Your task to perform on an android device: Open the map Image 0: 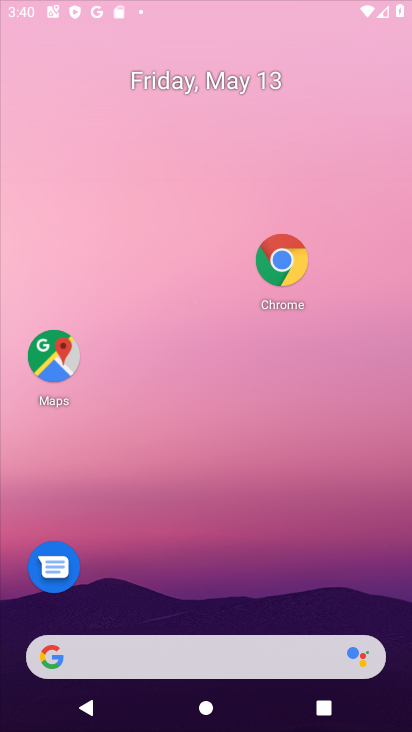
Step 0: drag from (253, 642) to (140, 130)
Your task to perform on an android device: Open the map Image 1: 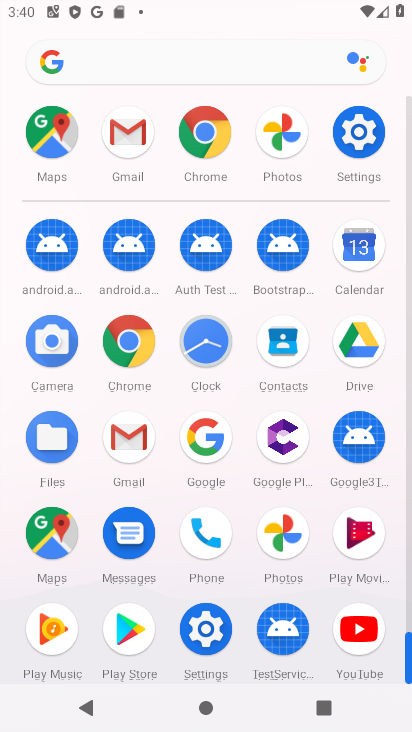
Step 1: click (51, 537)
Your task to perform on an android device: Open the map Image 2: 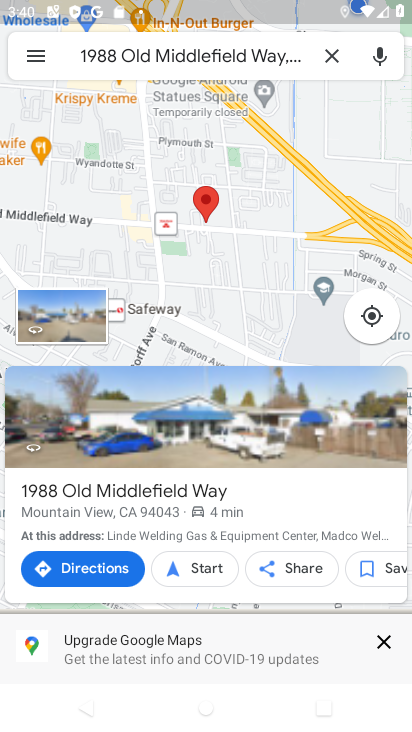
Step 2: task complete